Your task to perform on an android device: turn on airplane mode Image 0: 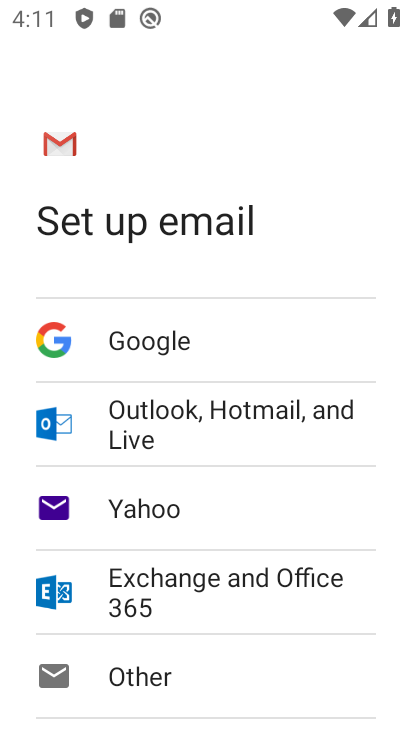
Step 0: press home button
Your task to perform on an android device: turn on airplane mode Image 1: 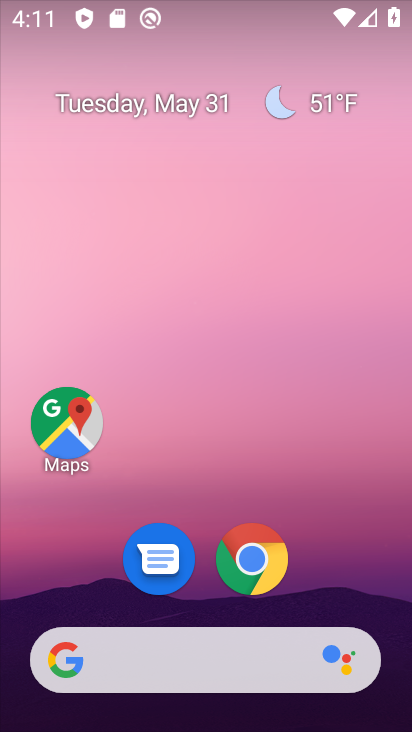
Step 1: drag from (315, 595) to (247, 29)
Your task to perform on an android device: turn on airplane mode Image 2: 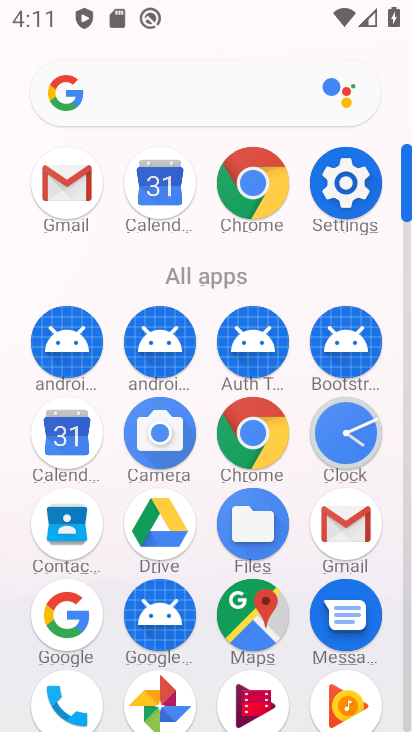
Step 2: click (330, 185)
Your task to perform on an android device: turn on airplane mode Image 3: 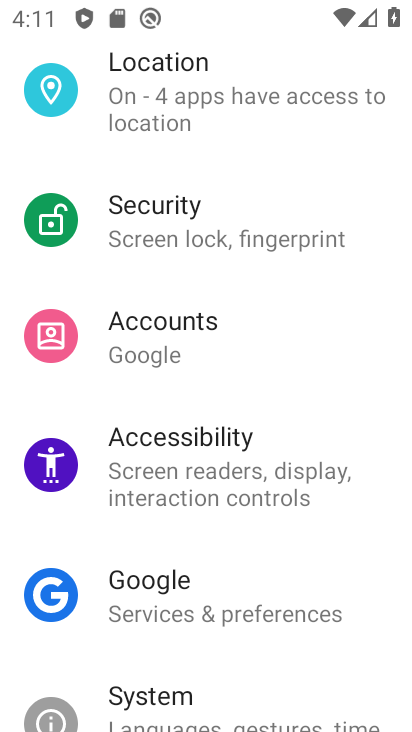
Step 3: drag from (158, 266) to (212, 679)
Your task to perform on an android device: turn on airplane mode Image 4: 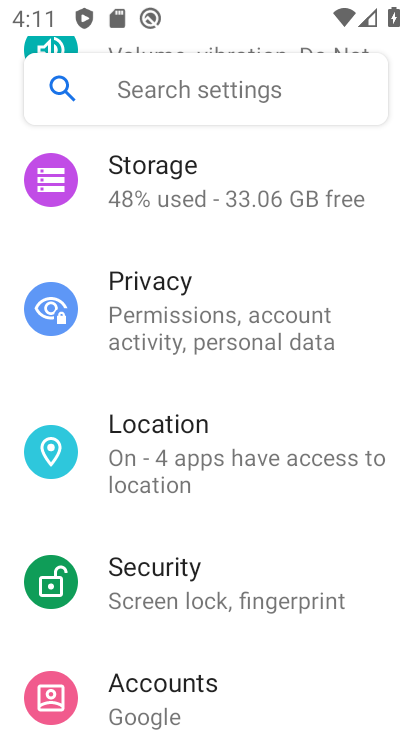
Step 4: drag from (121, 363) to (136, 723)
Your task to perform on an android device: turn on airplane mode Image 5: 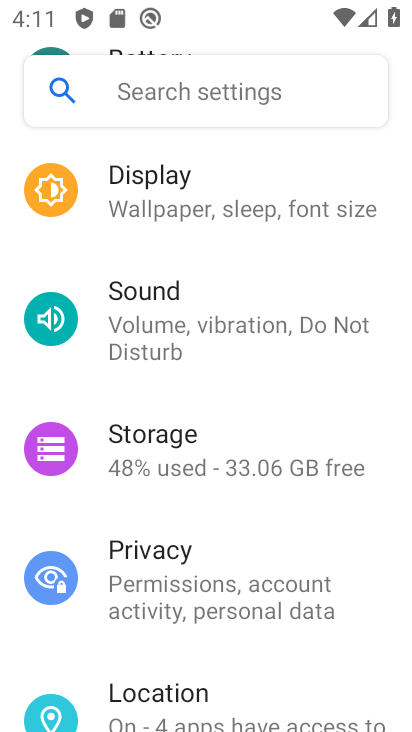
Step 5: drag from (169, 475) to (230, 730)
Your task to perform on an android device: turn on airplane mode Image 6: 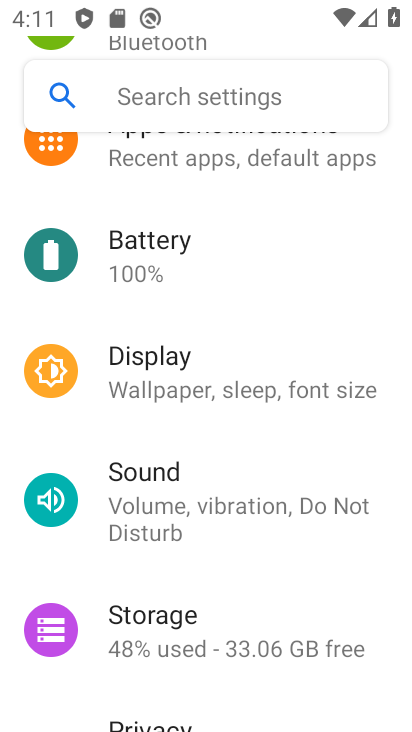
Step 6: drag from (145, 234) to (148, 716)
Your task to perform on an android device: turn on airplane mode Image 7: 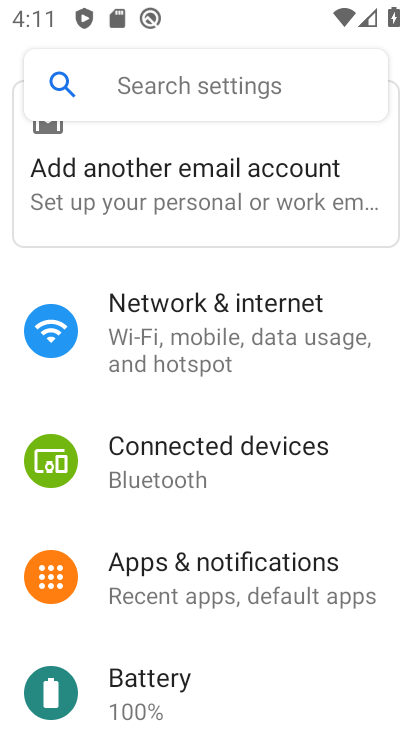
Step 7: click (153, 367)
Your task to perform on an android device: turn on airplane mode Image 8: 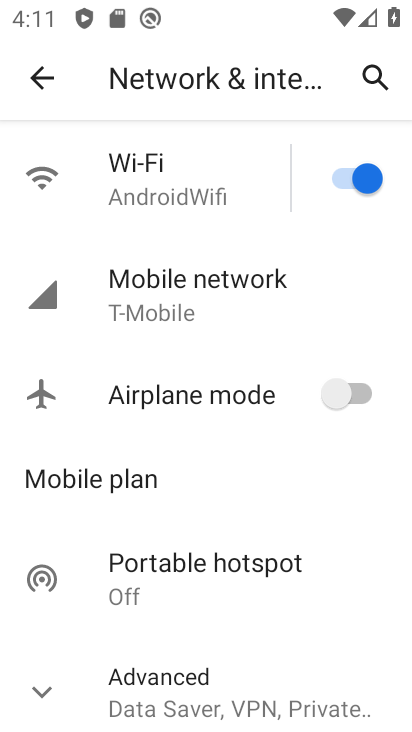
Step 8: click (350, 391)
Your task to perform on an android device: turn on airplane mode Image 9: 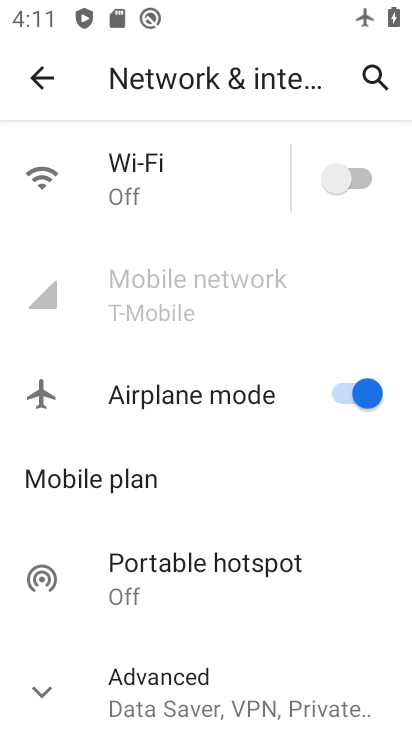
Step 9: task complete